Your task to perform on an android device: Open Wikipedia Image 0: 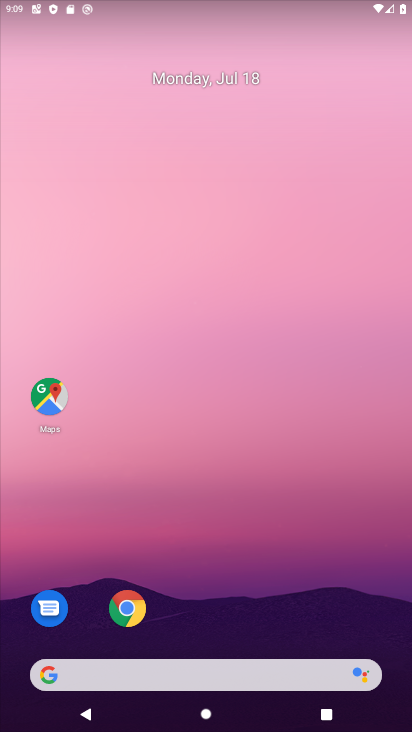
Step 0: press home button
Your task to perform on an android device: Open Wikipedia Image 1: 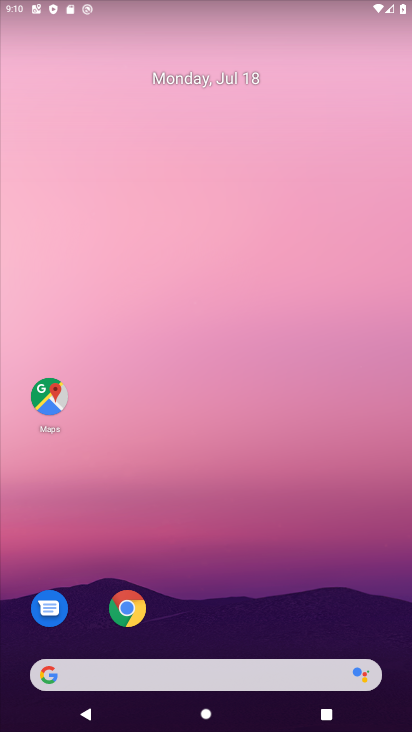
Step 1: click (123, 604)
Your task to perform on an android device: Open Wikipedia Image 2: 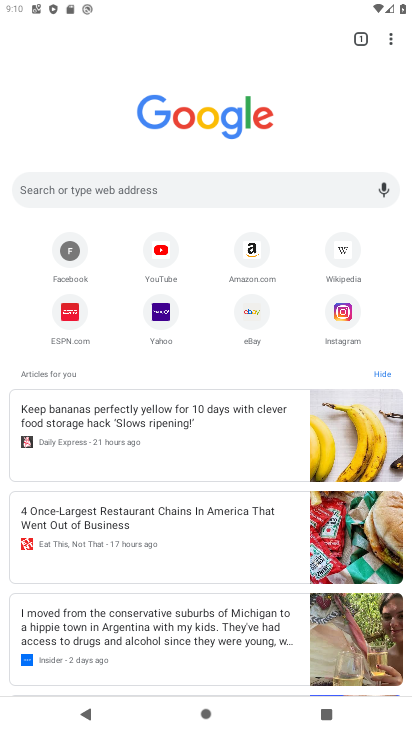
Step 2: click (342, 246)
Your task to perform on an android device: Open Wikipedia Image 3: 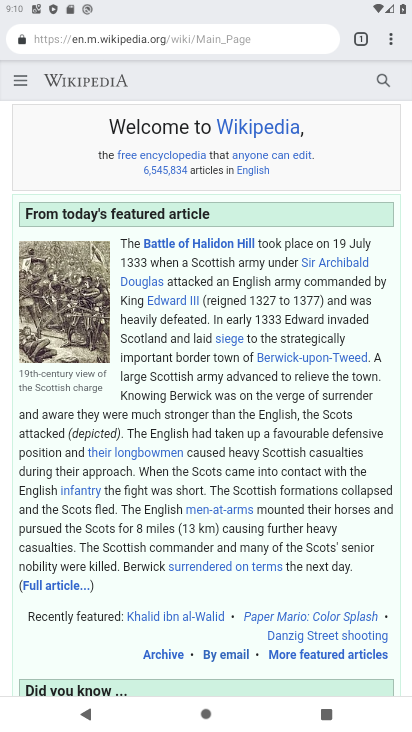
Step 3: task complete